Your task to perform on an android device: Toggle the flashlight Image 0: 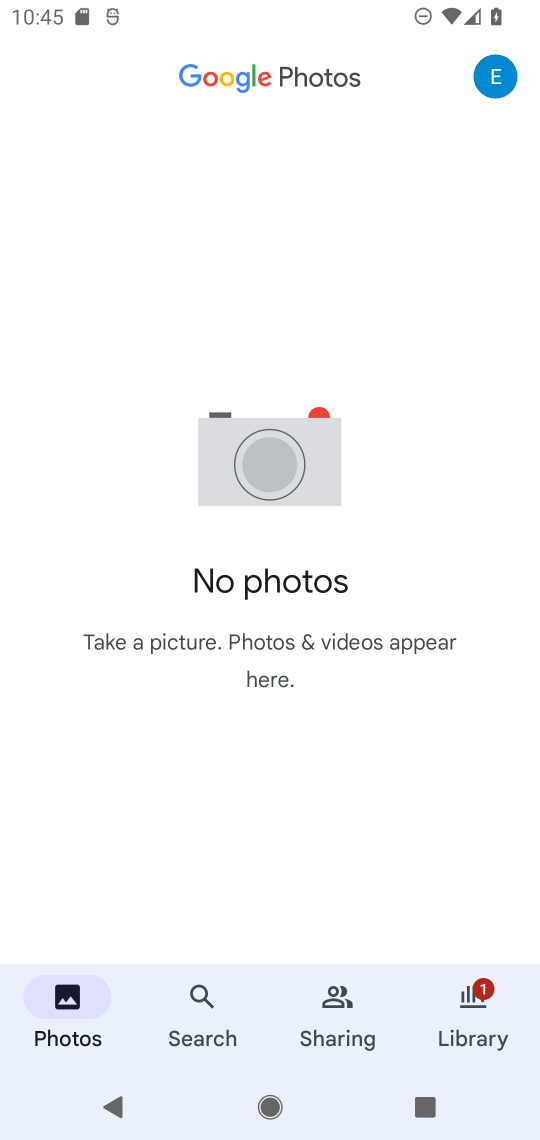
Step 0: press home button
Your task to perform on an android device: Toggle the flashlight Image 1: 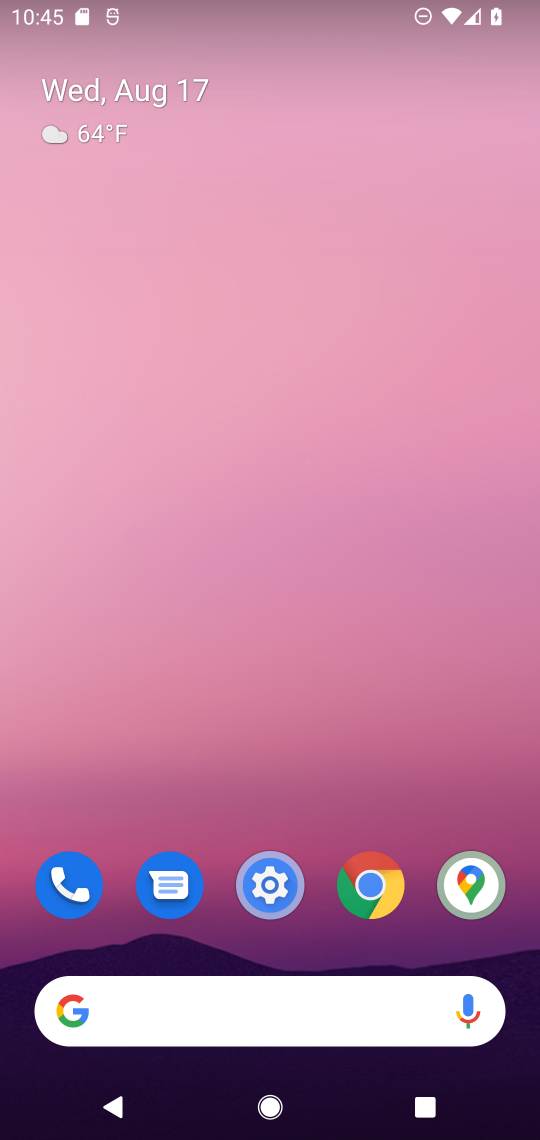
Step 1: drag from (310, 16) to (288, 964)
Your task to perform on an android device: Toggle the flashlight Image 2: 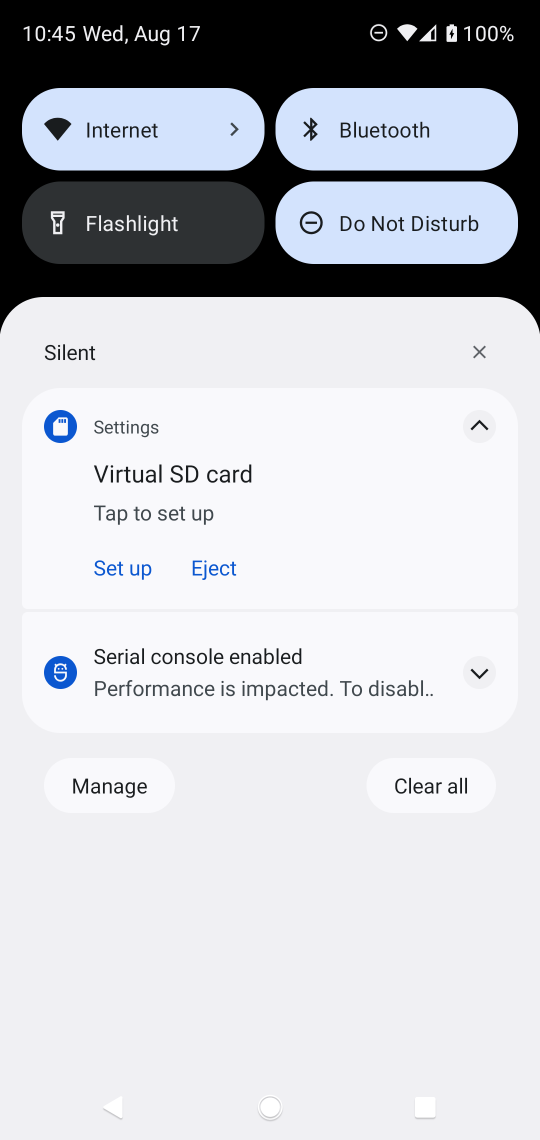
Step 2: click (128, 215)
Your task to perform on an android device: Toggle the flashlight Image 3: 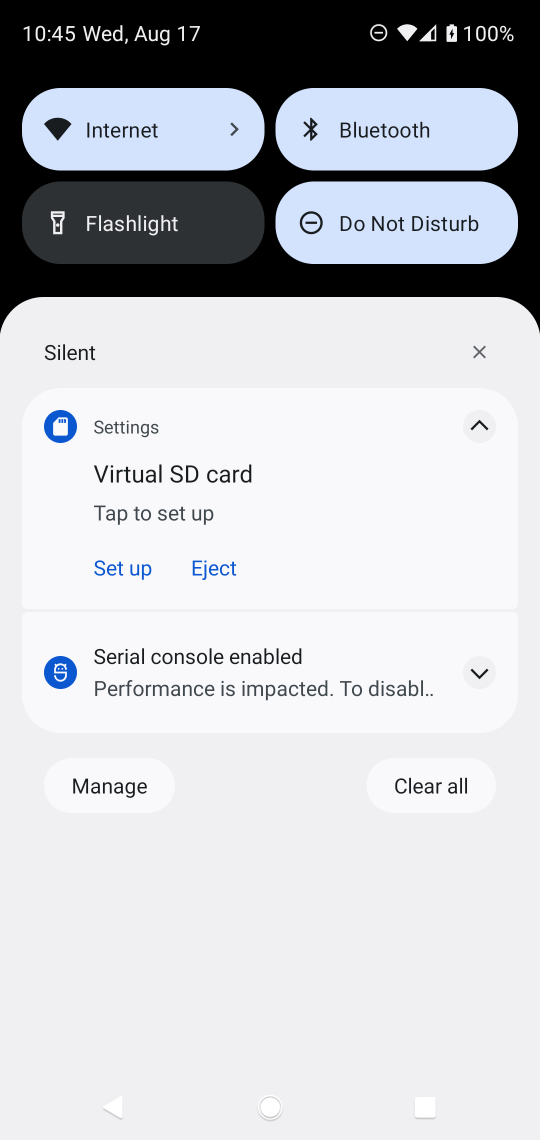
Step 3: task complete